Your task to perform on an android device: Open Wikipedia Image 0: 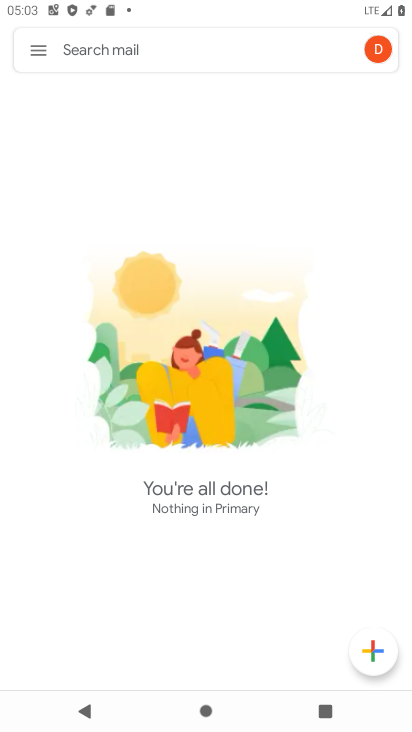
Step 0: press back button
Your task to perform on an android device: Open Wikipedia Image 1: 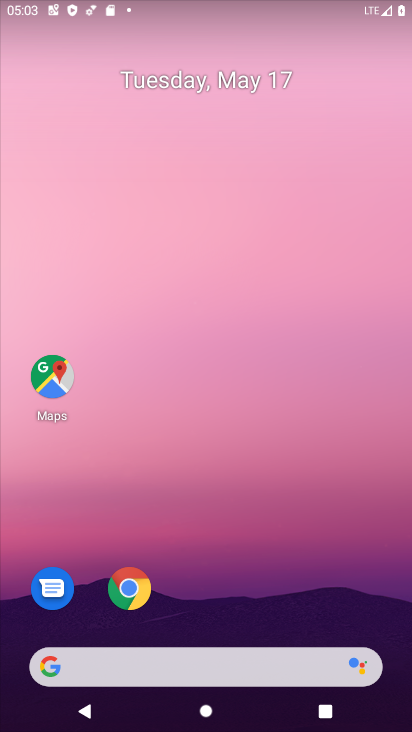
Step 1: click (130, 586)
Your task to perform on an android device: Open Wikipedia Image 2: 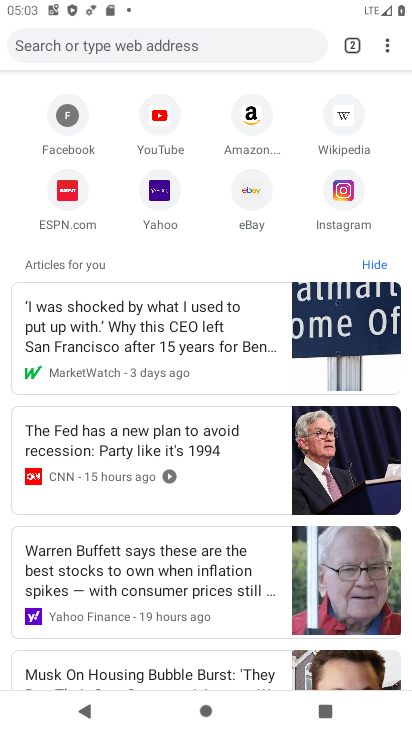
Step 2: click (346, 120)
Your task to perform on an android device: Open Wikipedia Image 3: 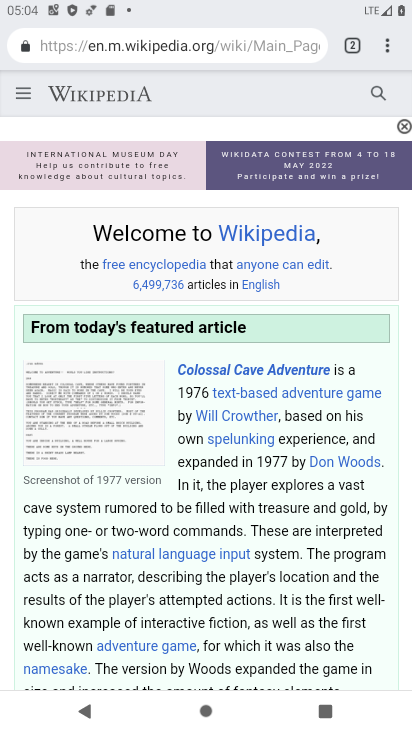
Step 3: task complete